Your task to perform on an android device: Is it going to rain this weekend? Image 0: 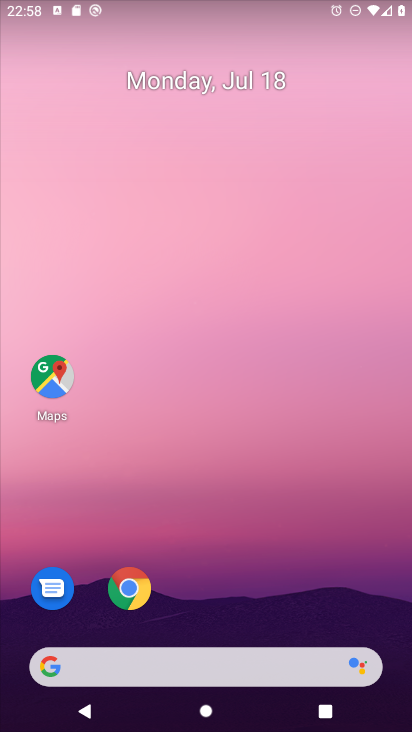
Step 0: drag from (4, 262) to (396, 252)
Your task to perform on an android device: Is it going to rain this weekend? Image 1: 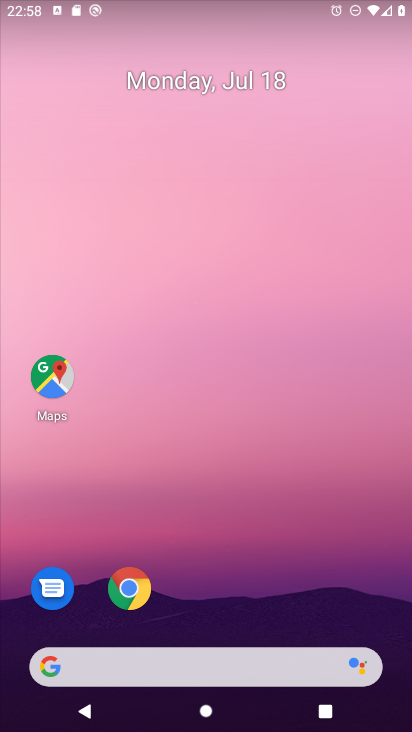
Step 1: drag from (3, 253) to (399, 279)
Your task to perform on an android device: Is it going to rain this weekend? Image 2: 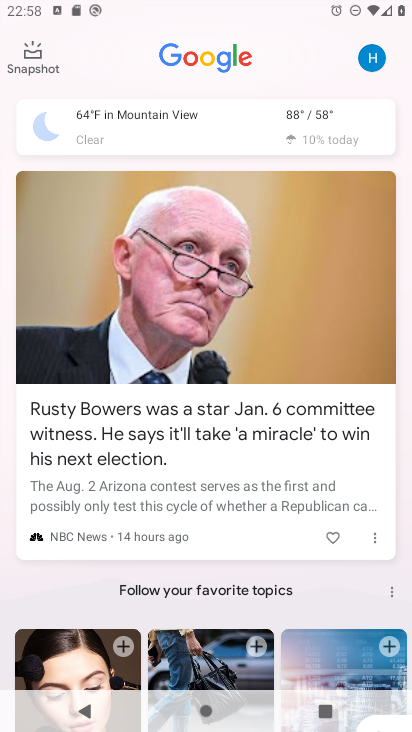
Step 2: click (307, 114)
Your task to perform on an android device: Is it going to rain this weekend? Image 3: 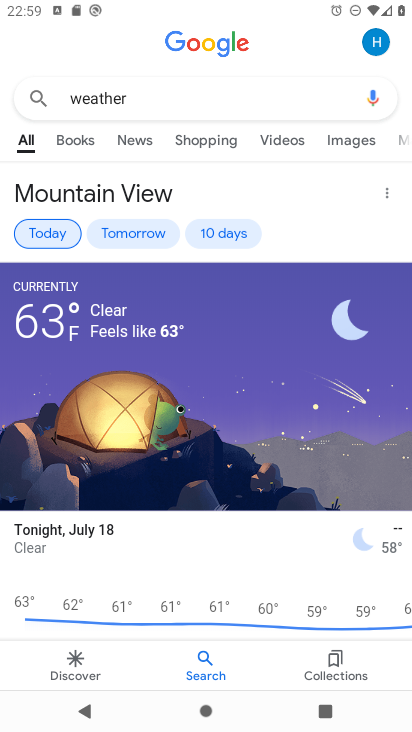
Step 3: click (229, 233)
Your task to perform on an android device: Is it going to rain this weekend? Image 4: 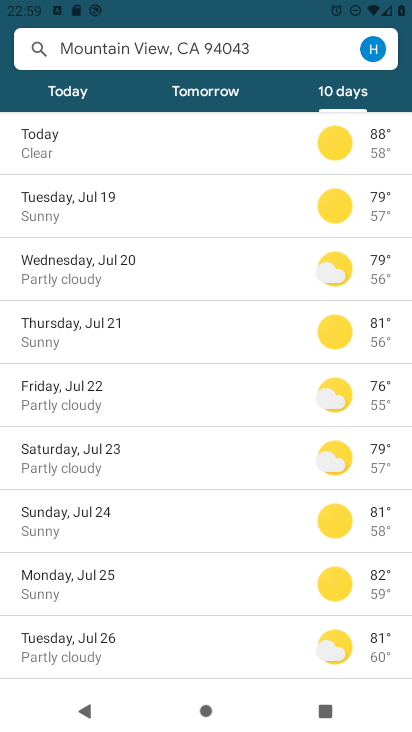
Step 4: task complete